Your task to perform on an android device: change keyboard looks Image 0: 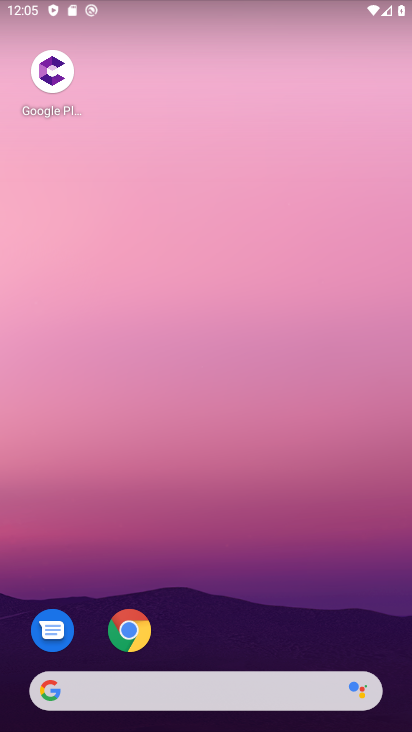
Step 0: drag from (246, 639) to (210, 33)
Your task to perform on an android device: change keyboard looks Image 1: 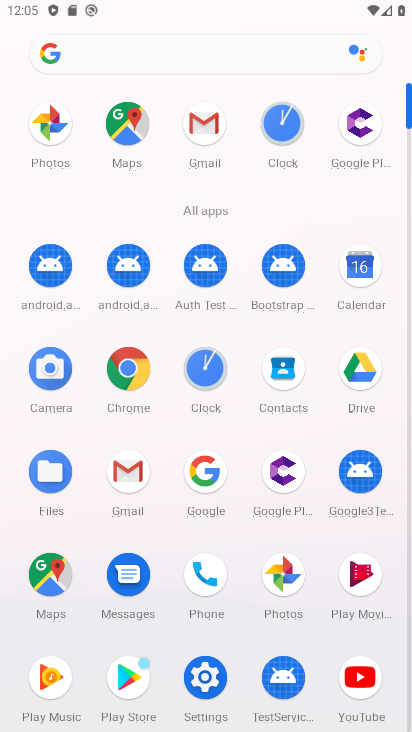
Step 1: drag from (241, 540) to (201, 77)
Your task to perform on an android device: change keyboard looks Image 2: 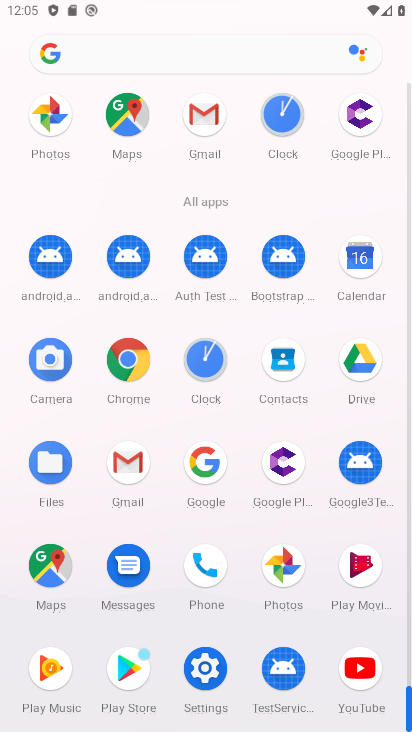
Step 2: click (203, 676)
Your task to perform on an android device: change keyboard looks Image 3: 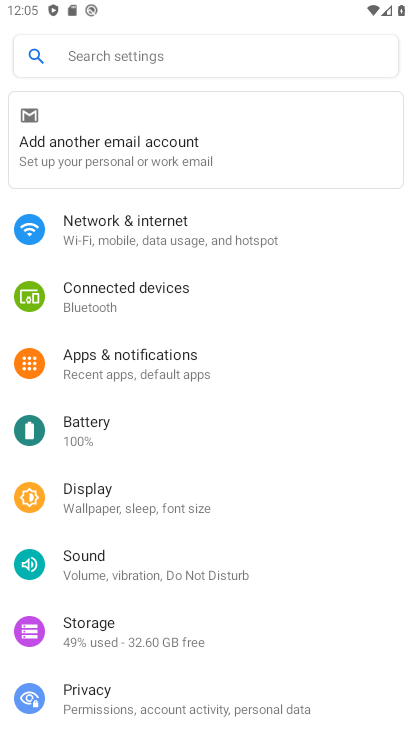
Step 3: drag from (295, 609) to (252, 197)
Your task to perform on an android device: change keyboard looks Image 4: 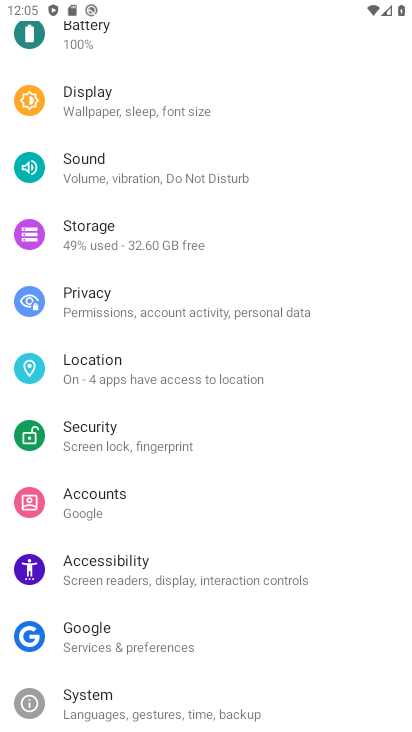
Step 4: drag from (207, 655) to (202, 396)
Your task to perform on an android device: change keyboard looks Image 5: 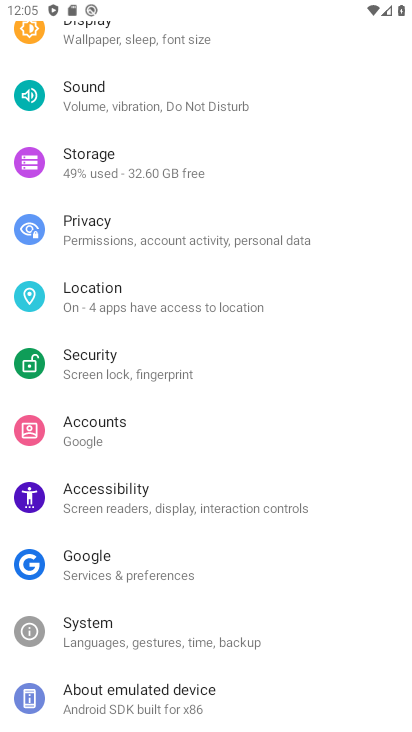
Step 5: click (197, 622)
Your task to perform on an android device: change keyboard looks Image 6: 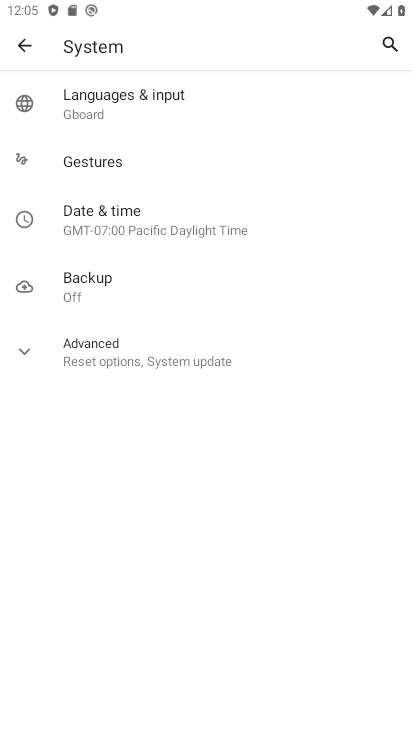
Step 6: click (139, 105)
Your task to perform on an android device: change keyboard looks Image 7: 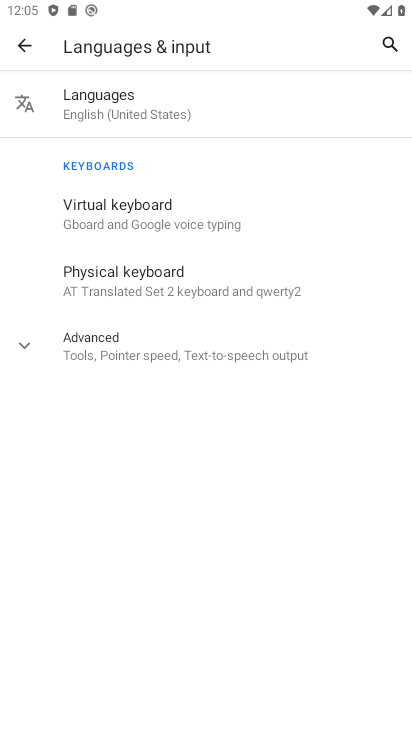
Step 7: click (115, 229)
Your task to perform on an android device: change keyboard looks Image 8: 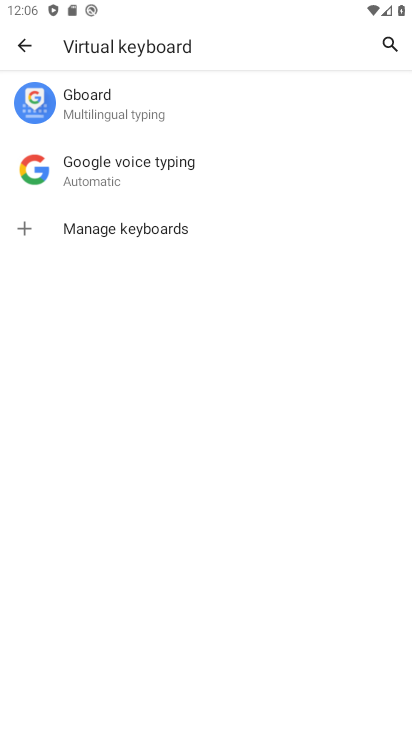
Step 8: click (168, 95)
Your task to perform on an android device: change keyboard looks Image 9: 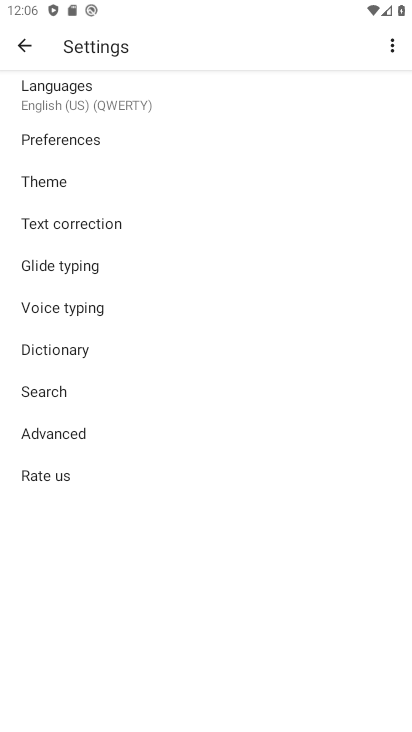
Step 9: click (85, 173)
Your task to perform on an android device: change keyboard looks Image 10: 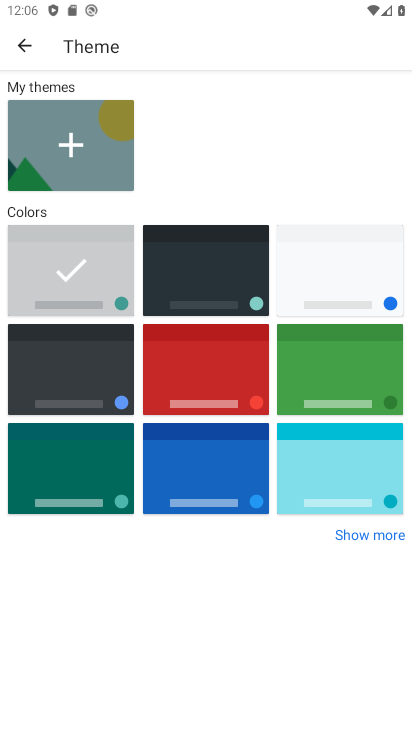
Step 10: click (378, 458)
Your task to perform on an android device: change keyboard looks Image 11: 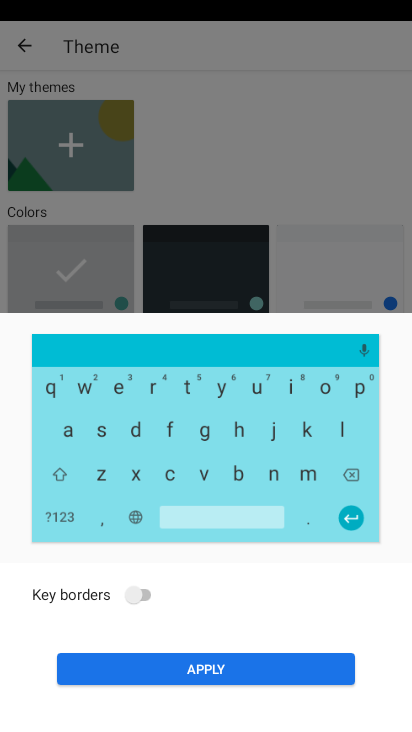
Step 11: click (250, 666)
Your task to perform on an android device: change keyboard looks Image 12: 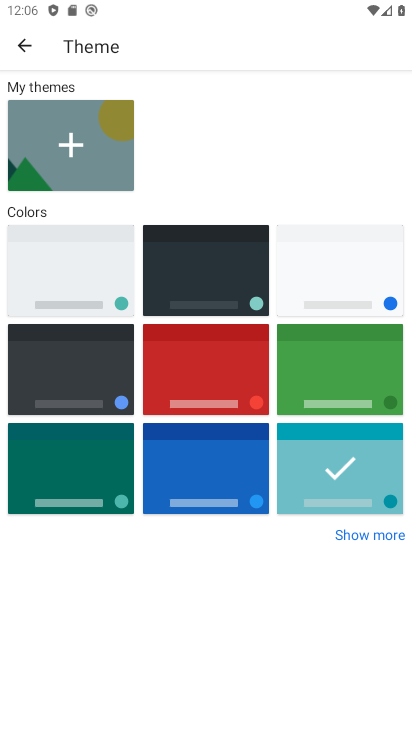
Step 12: task complete